Your task to perform on an android device: Open Android settings Image 0: 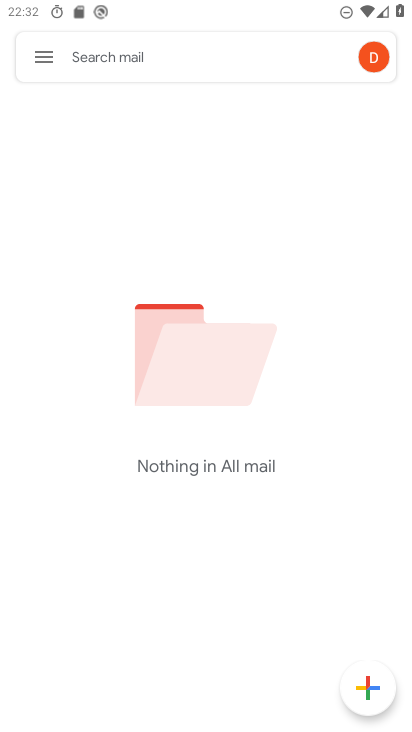
Step 0: press home button
Your task to perform on an android device: Open Android settings Image 1: 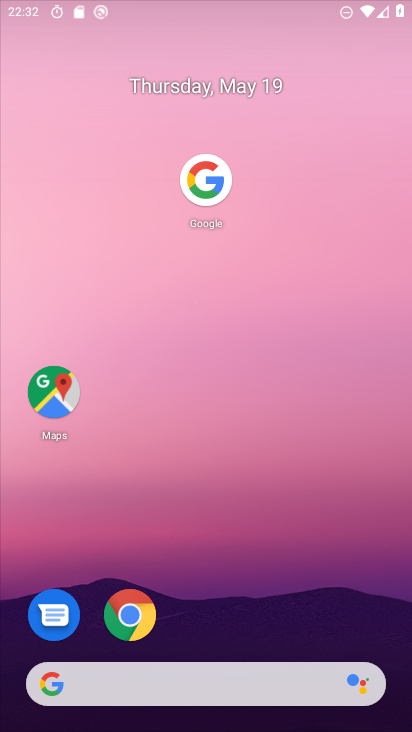
Step 1: drag from (222, 591) to (265, 6)
Your task to perform on an android device: Open Android settings Image 2: 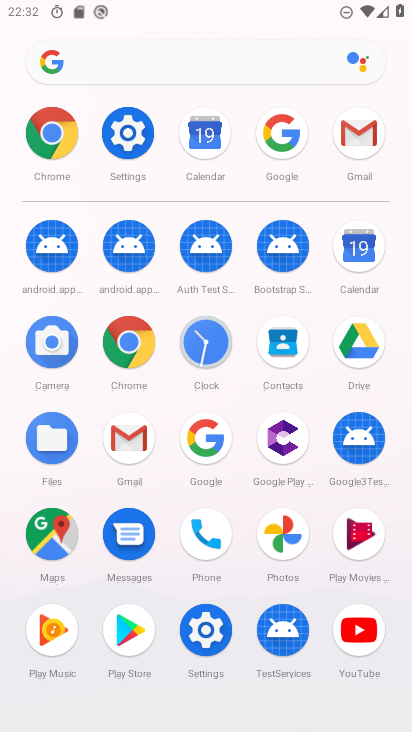
Step 2: click (131, 125)
Your task to perform on an android device: Open Android settings Image 3: 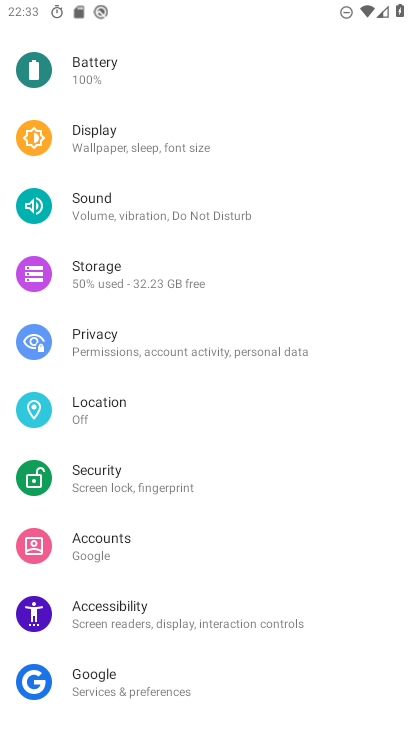
Step 3: task complete